Your task to perform on an android device: Open Android settings Image 0: 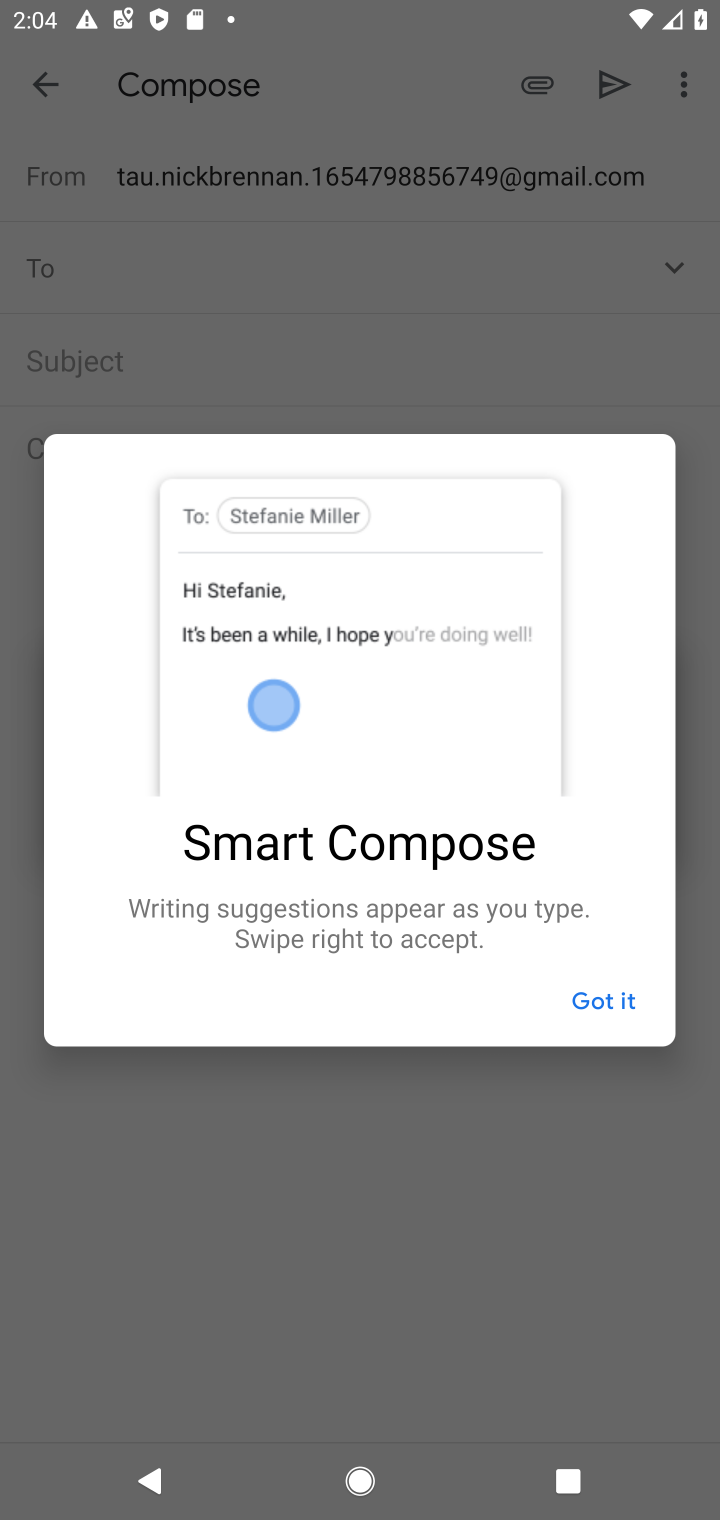
Step 0: press home button
Your task to perform on an android device: Open Android settings Image 1: 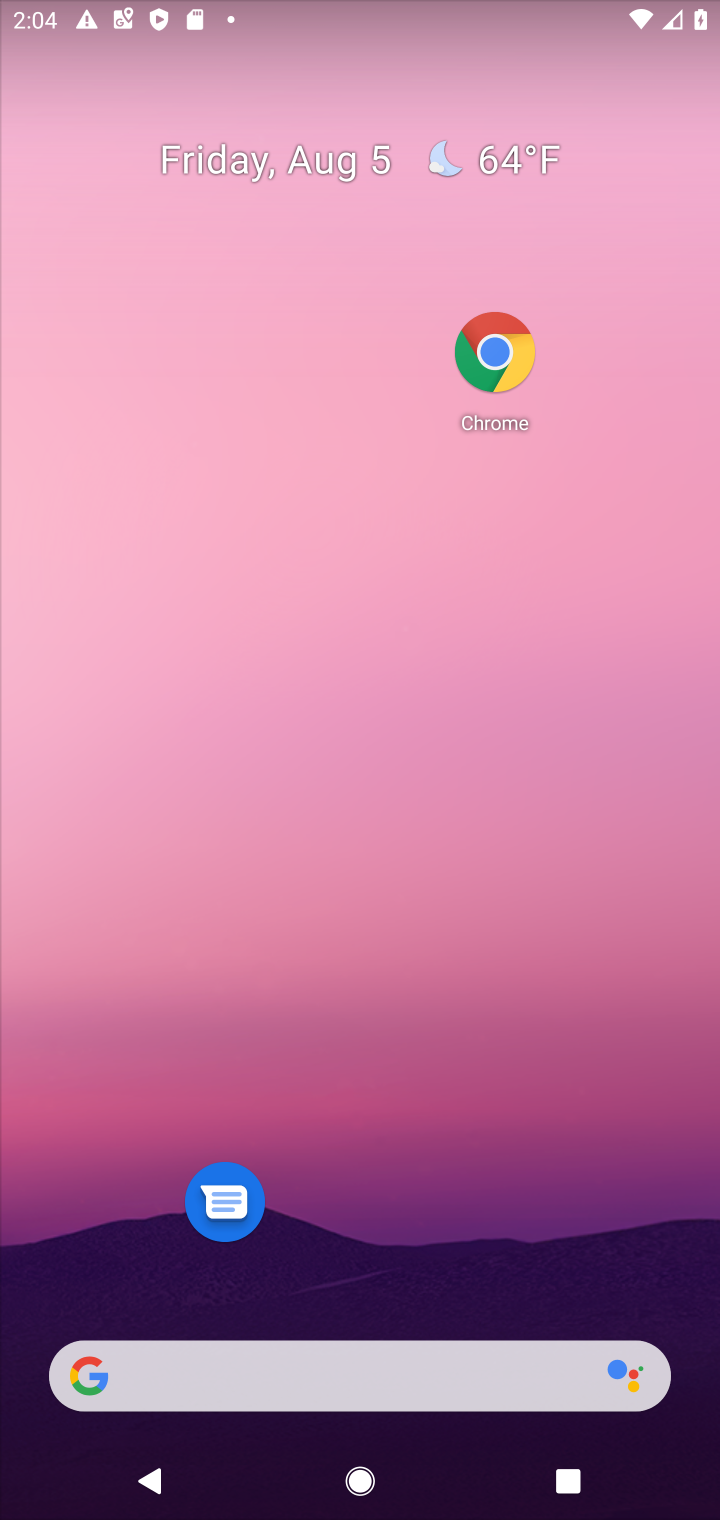
Step 1: drag from (516, 788) to (466, 0)
Your task to perform on an android device: Open Android settings Image 2: 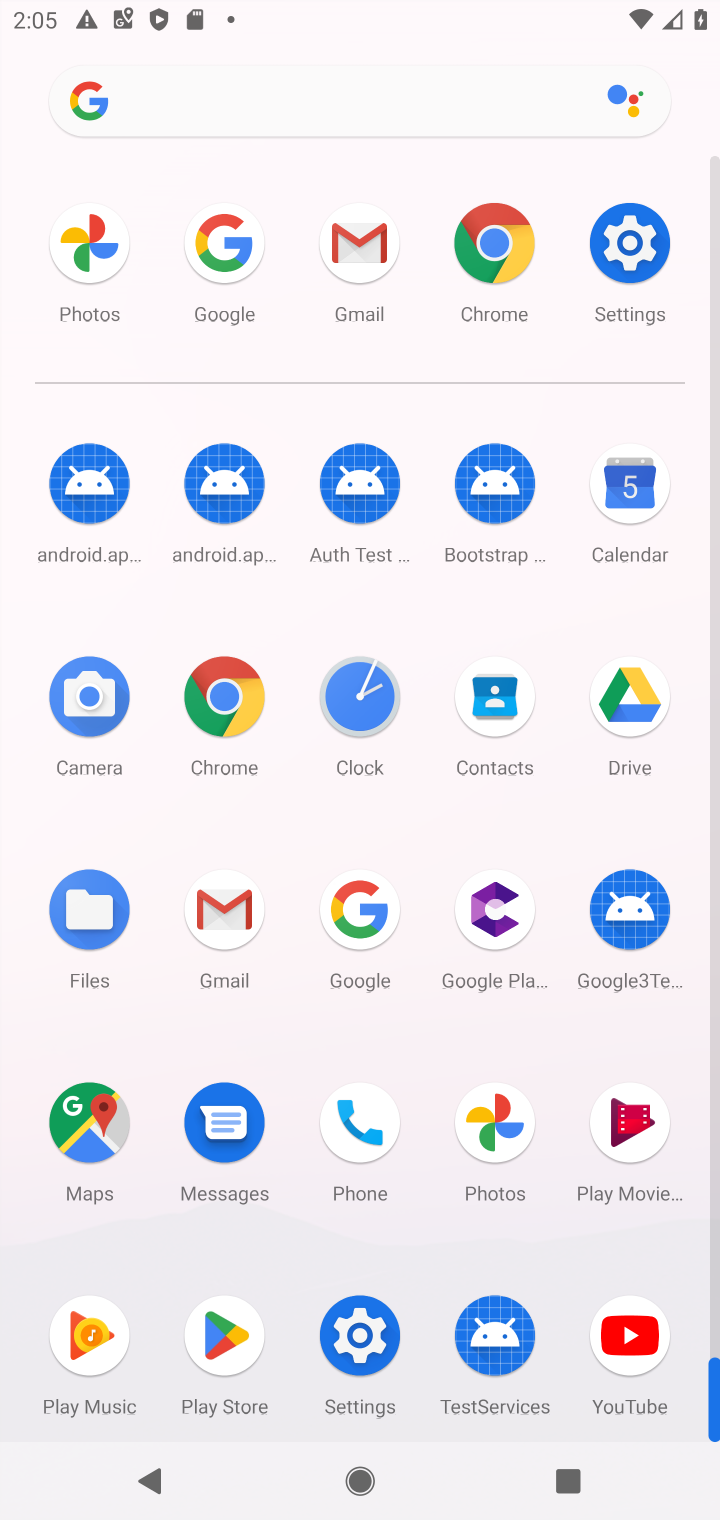
Step 2: click (359, 1330)
Your task to perform on an android device: Open Android settings Image 3: 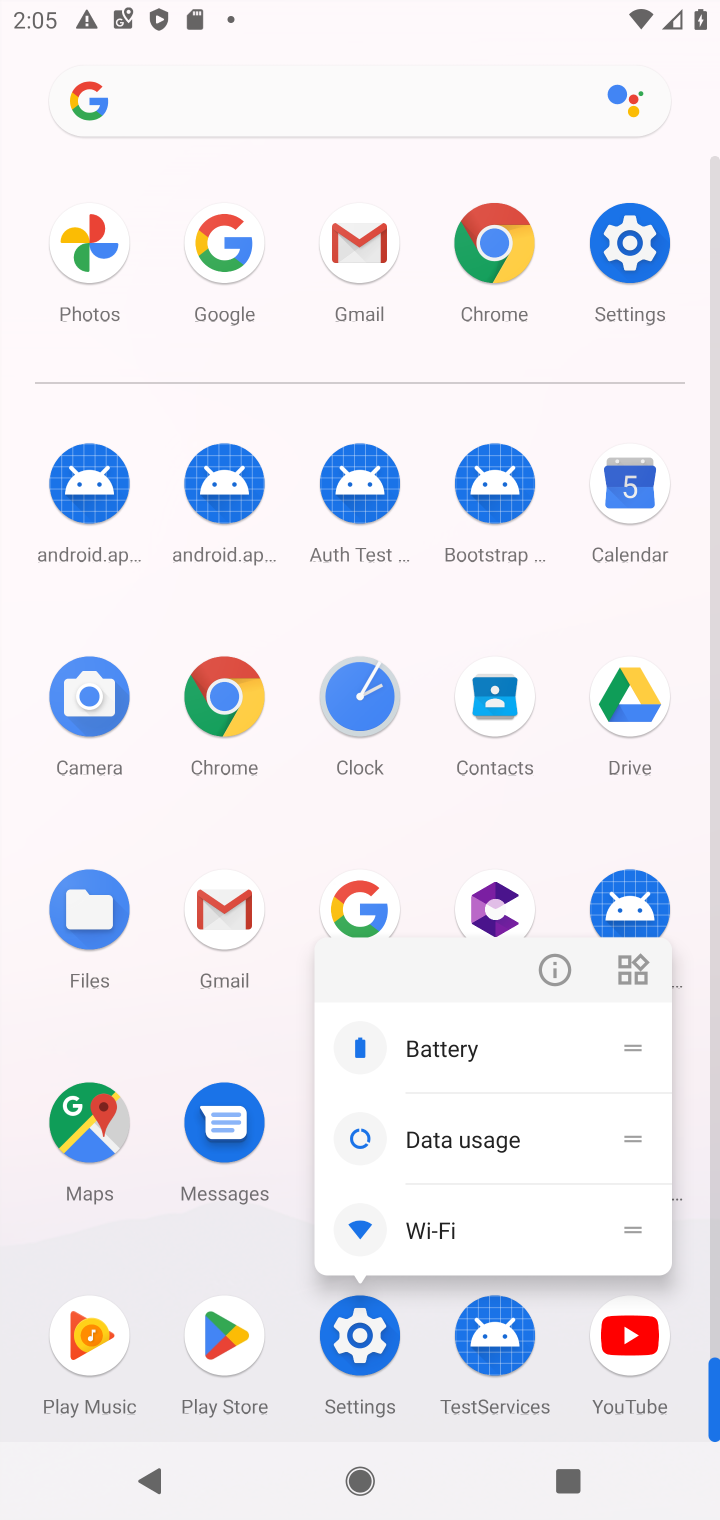
Step 3: click (359, 1344)
Your task to perform on an android device: Open Android settings Image 4: 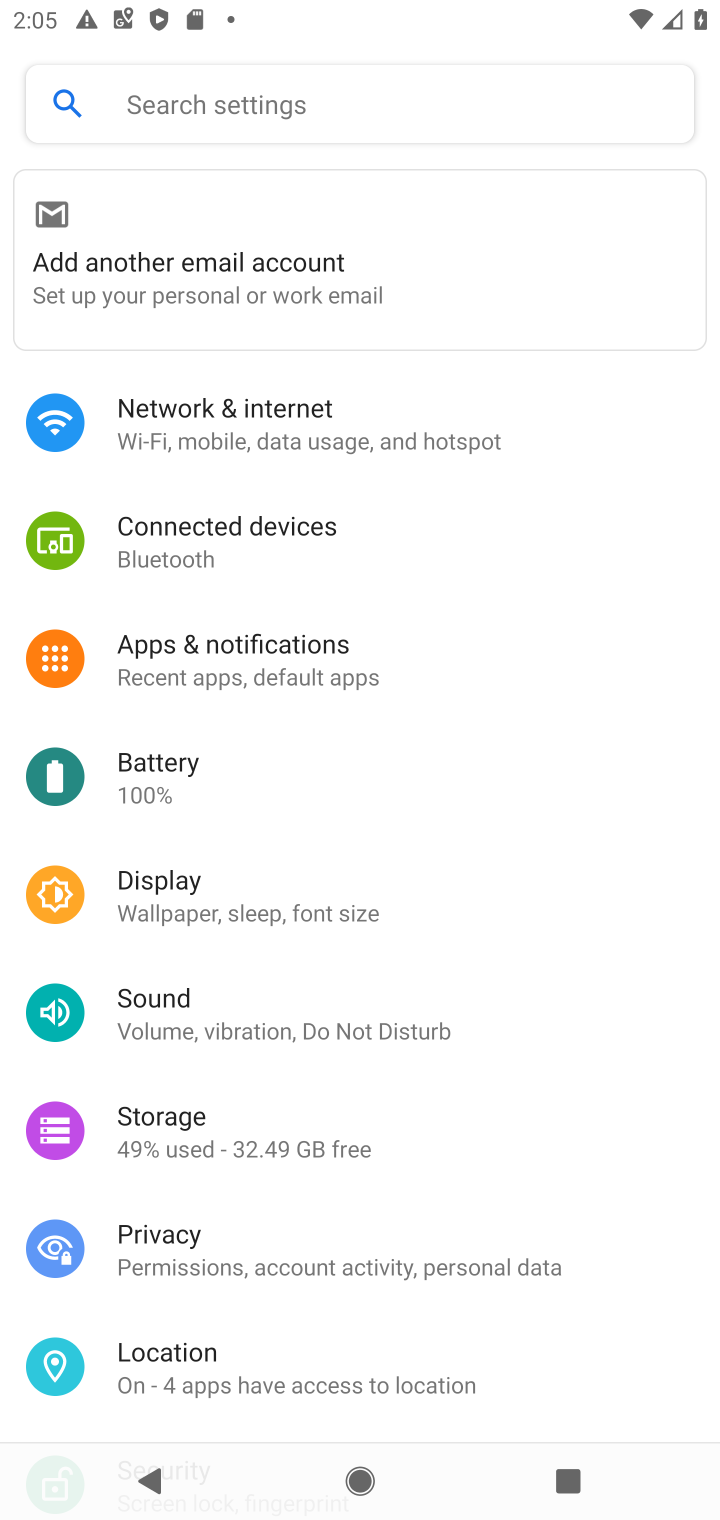
Step 4: task complete